Your task to perform on an android device: Go to sound settings Image 0: 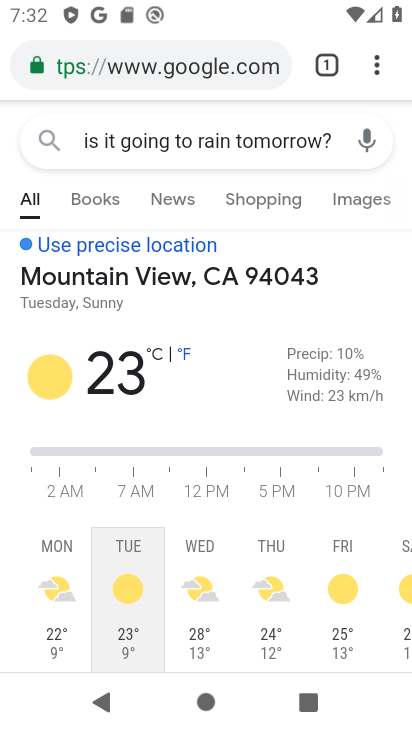
Step 0: press home button
Your task to perform on an android device: Go to sound settings Image 1: 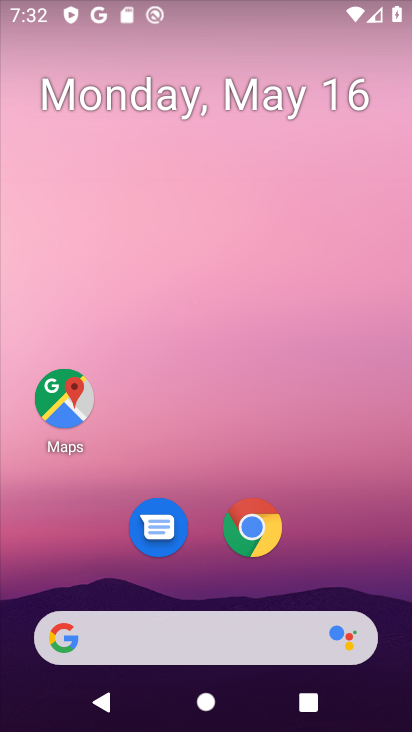
Step 1: drag from (288, 574) to (283, 211)
Your task to perform on an android device: Go to sound settings Image 2: 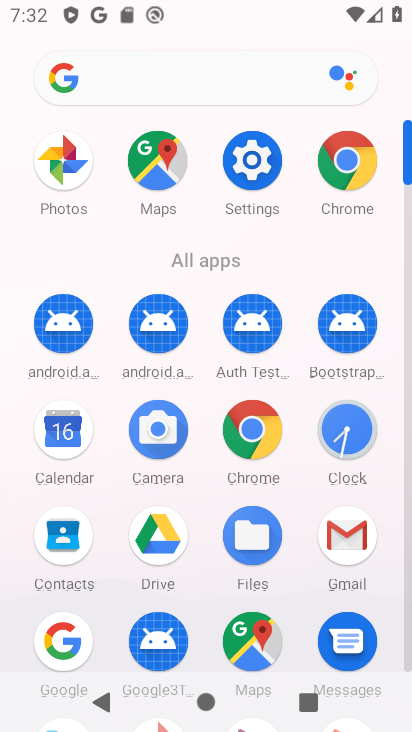
Step 2: click (254, 145)
Your task to perform on an android device: Go to sound settings Image 3: 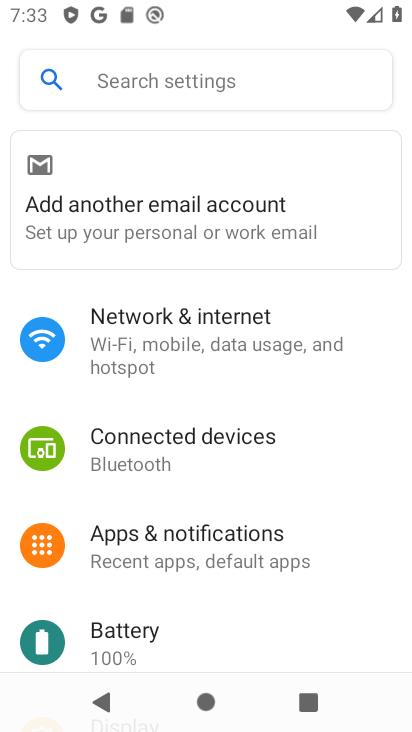
Step 3: drag from (168, 566) to (219, 247)
Your task to perform on an android device: Go to sound settings Image 4: 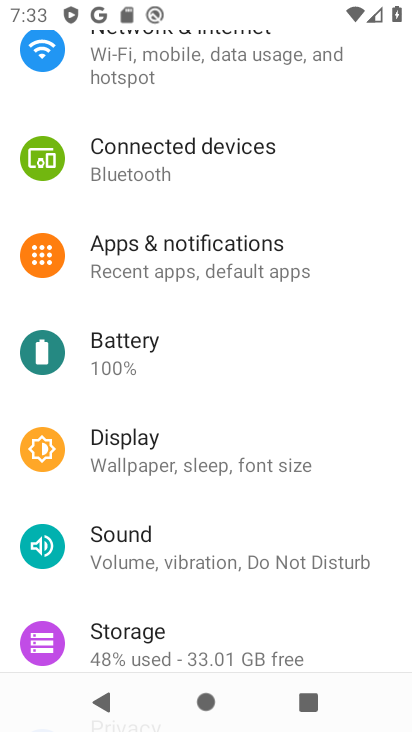
Step 4: click (145, 553)
Your task to perform on an android device: Go to sound settings Image 5: 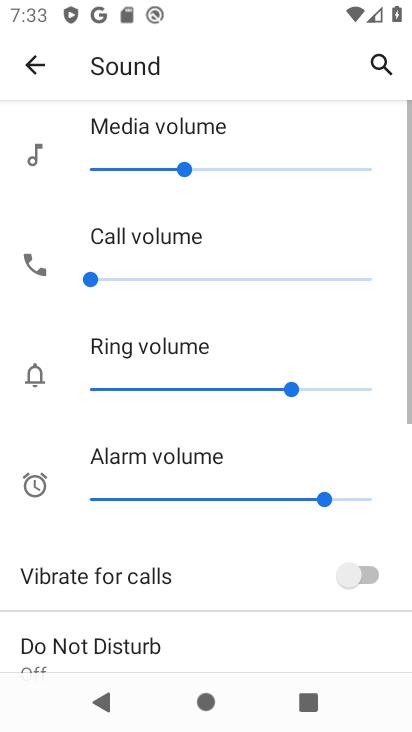
Step 5: task complete